Your task to perform on an android device: toggle notifications settings in the gmail app Image 0: 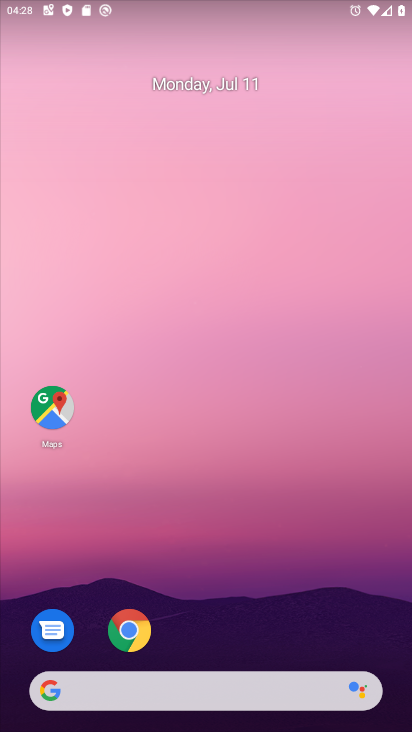
Step 0: drag from (213, 653) to (163, 29)
Your task to perform on an android device: toggle notifications settings in the gmail app Image 1: 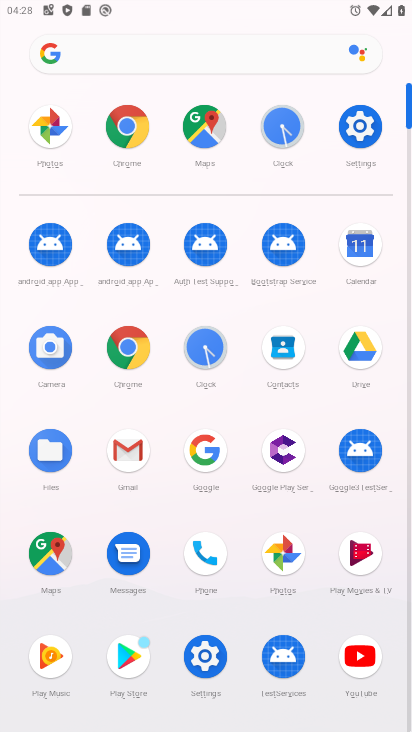
Step 1: click (124, 441)
Your task to perform on an android device: toggle notifications settings in the gmail app Image 2: 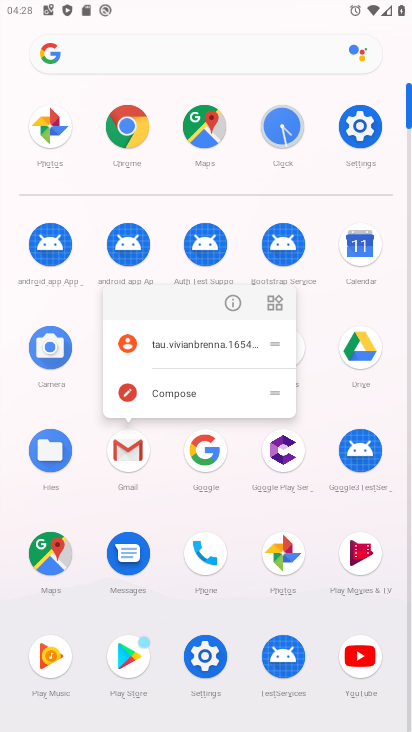
Step 2: click (124, 441)
Your task to perform on an android device: toggle notifications settings in the gmail app Image 3: 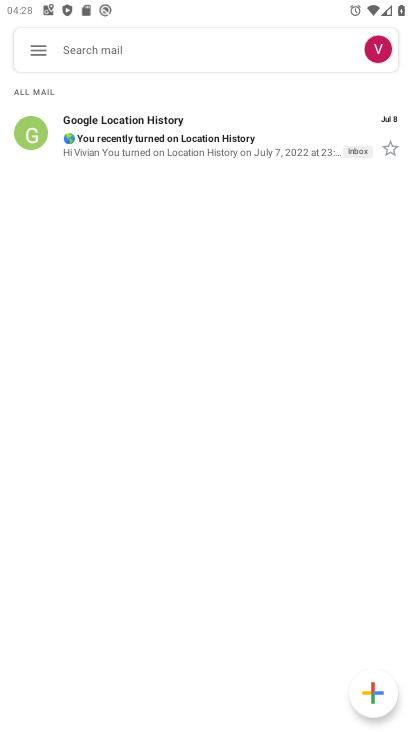
Step 3: click (32, 50)
Your task to perform on an android device: toggle notifications settings in the gmail app Image 4: 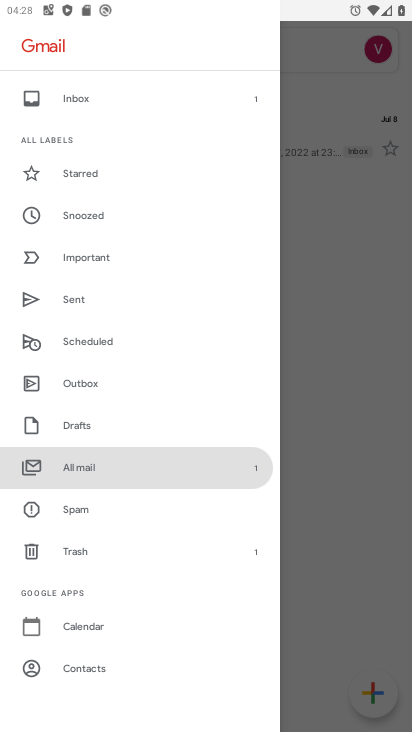
Step 4: drag from (99, 657) to (136, 133)
Your task to perform on an android device: toggle notifications settings in the gmail app Image 5: 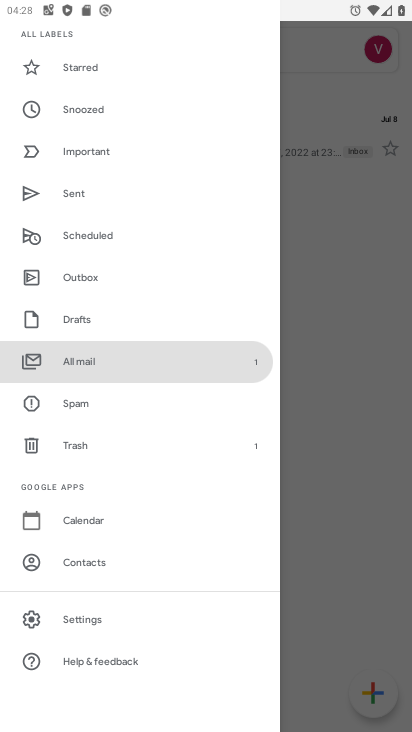
Step 5: click (113, 611)
Your task to perform on an android device: toggle notifications settings in the gmail app Image 6: 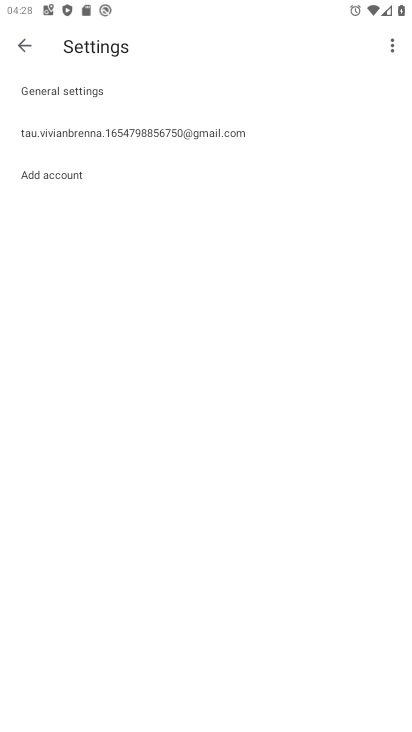
Step 6: click (107, 85)
Your task to perform on an android device: toggle notifications settings in the gmail app Image 7: 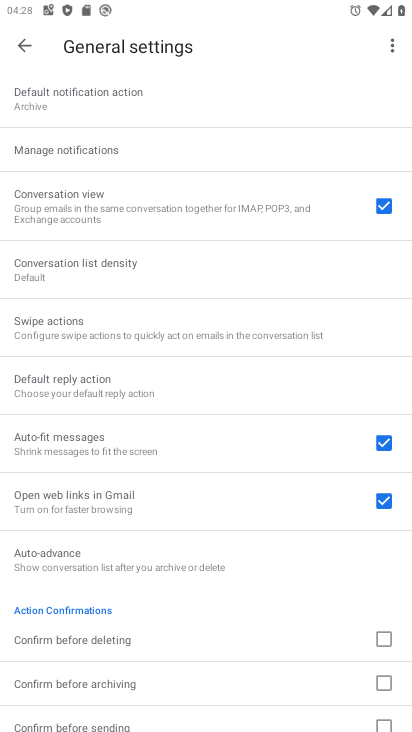
Step 7: click (139, 152)
Your task to perform on an android device: toggle notifications settings in the gmail app Image 8: 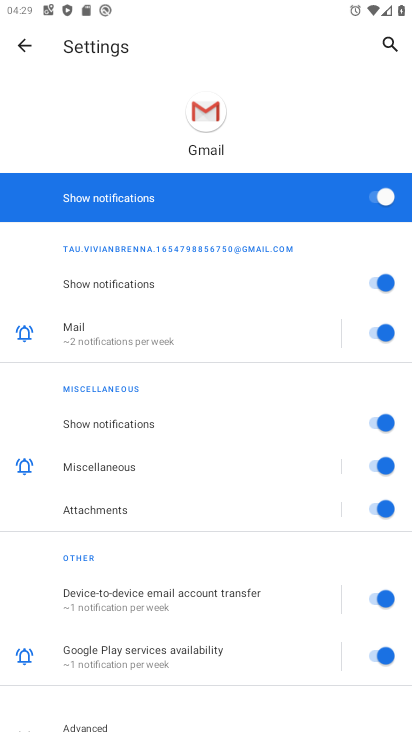
Step 8: click (373, 193)
Your task to perform on an android device: toggle notifications settings in the gmail app Image 9: 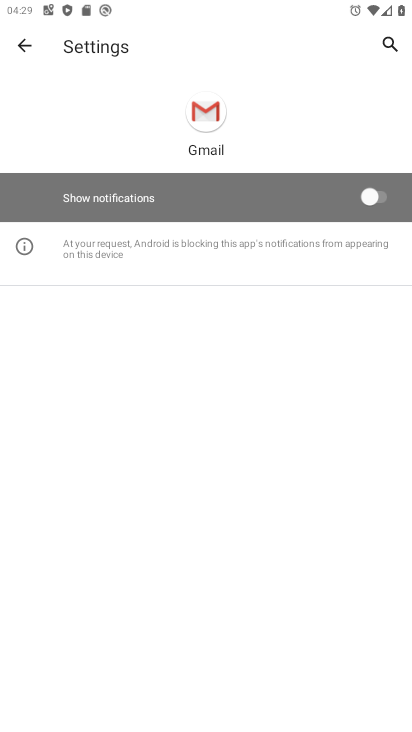
Step 9: task complete